Your task to perform on an android device: Open the calendar and show me this week's events Image 0: 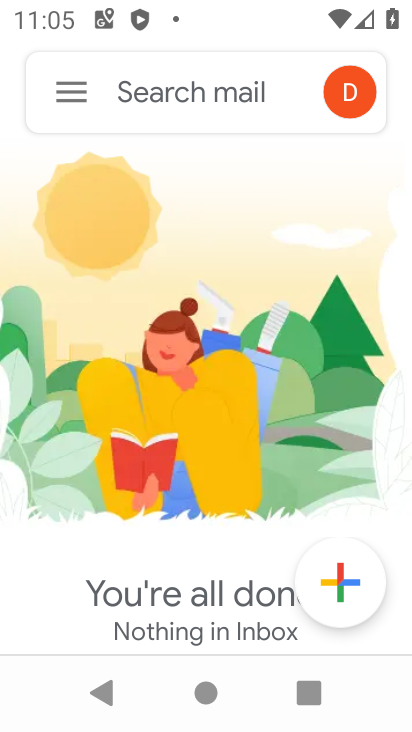
Step 0: press home button
Your task to perform on an android device: Open the calendar and show me this week's events Image 1: 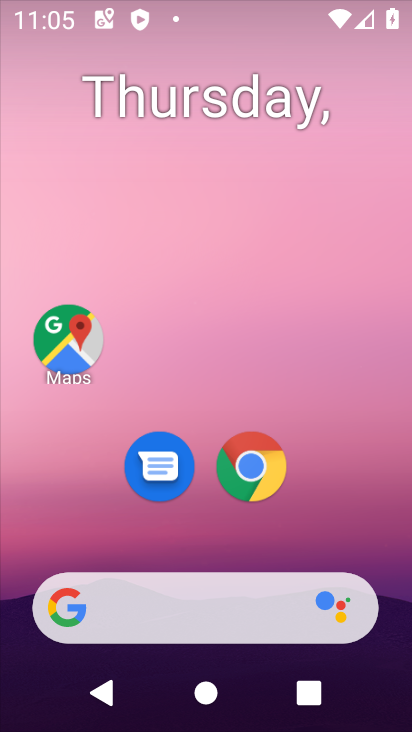
Step 1: drag from (184, 563) to (105, 63)
Your task to perform on an android device: Open the calendar and show me this week's events Image 2: 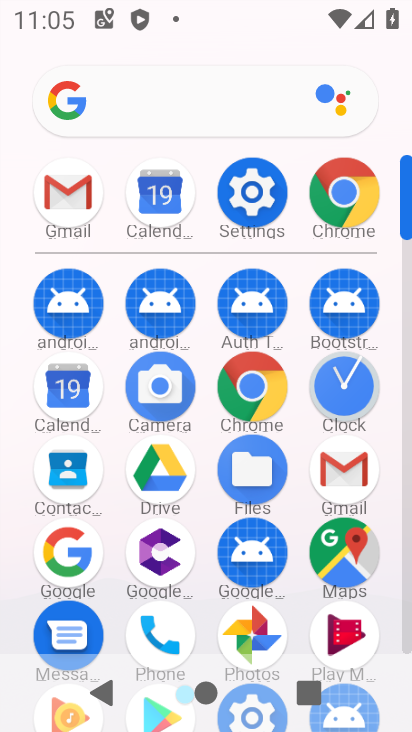
Step 2: click (82, 391)
Your task to perform on an android device: Open the calendar and show me this week's events Image 3: 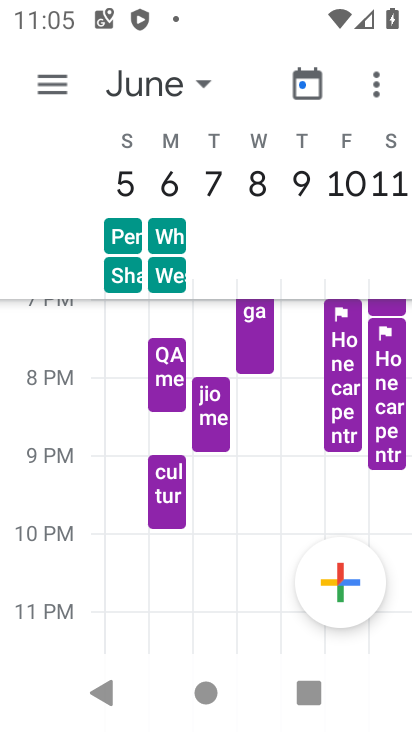
Step 3: task complete